Your task to perform on an android device: Open Google Maps and go to "Timeline" Image 0: 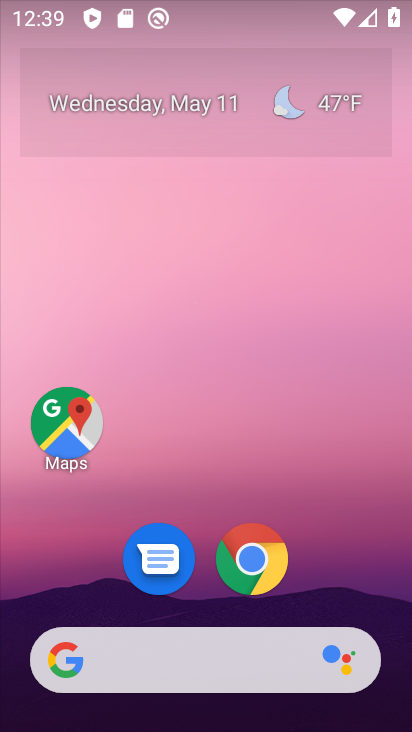
Step 0: drag from (200, 589) to (265, 91)
Your task to perform on an android device: Open Google Maps and go to "Timeline" Image 1: 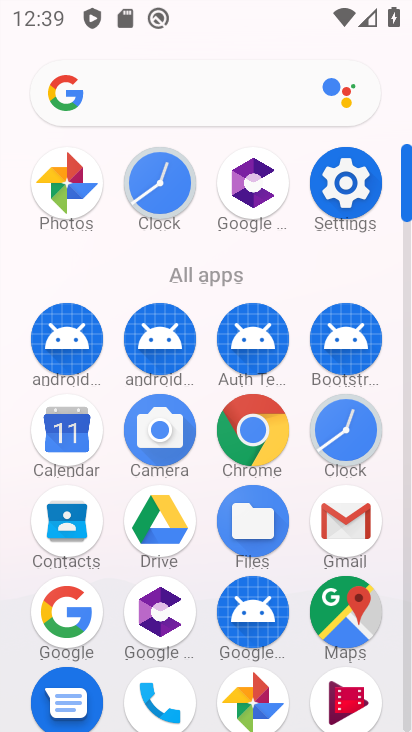
Step 1: click (340, 624)
Your task to perform on an android device: Open Google Maps and go to "Timeline" Image 2: 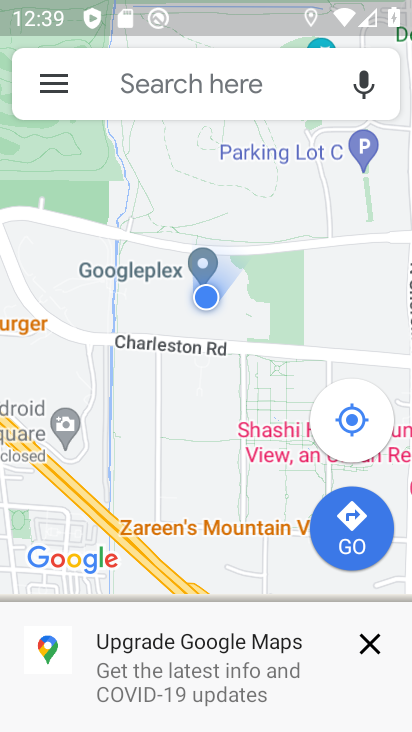
Step 2: click (363, 641)
Your task to perform on an android device: Open Google Maps and go to "Timeline" Image 3: 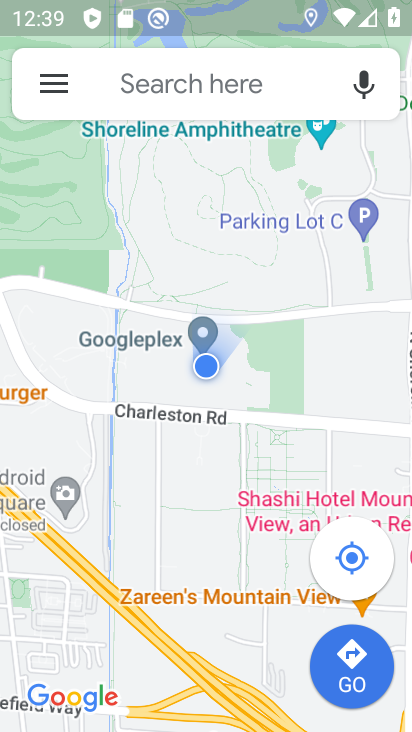
Step 3: click (64, 86)
Your task to perform on an android device: Open Google Maps and go to "Timeline" Image 4: 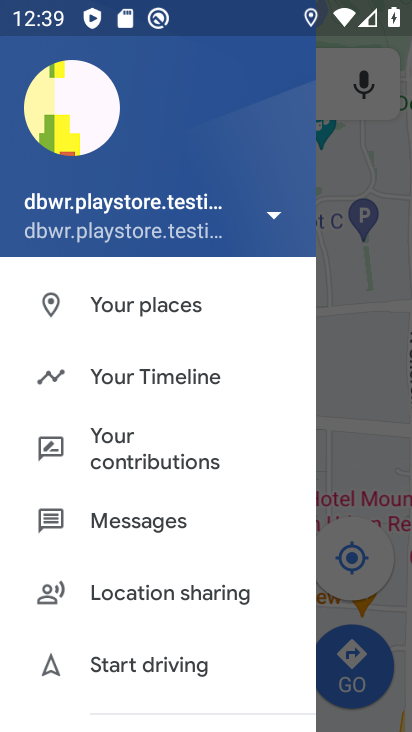
Step 4: click (150, 378)
Your task to perform on an android device: Open Google Maps and go to "Timeline" Image 5: 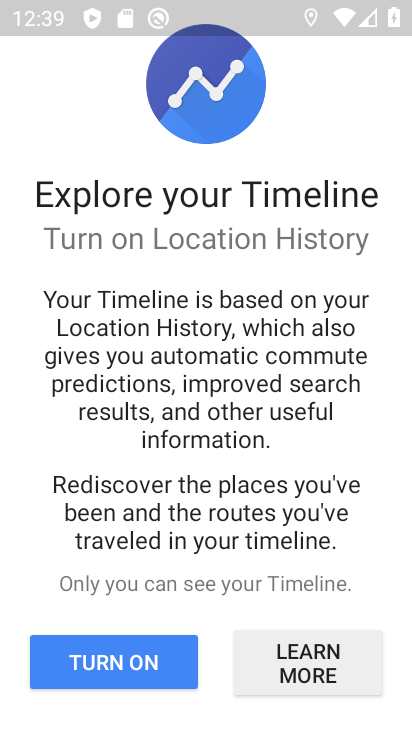
Step 5: drag from (201, 568) to (249, 151)
Your task to perform on an android device: Open Google Maps and go to "Timeline" Image 6: 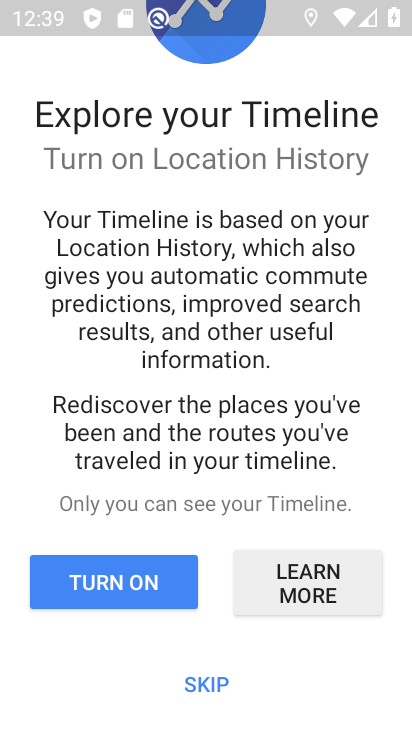
Step 6: click (208, 685)
Your task to perform on an android device: Open Google Maps and go to "Timeline" Image 7: 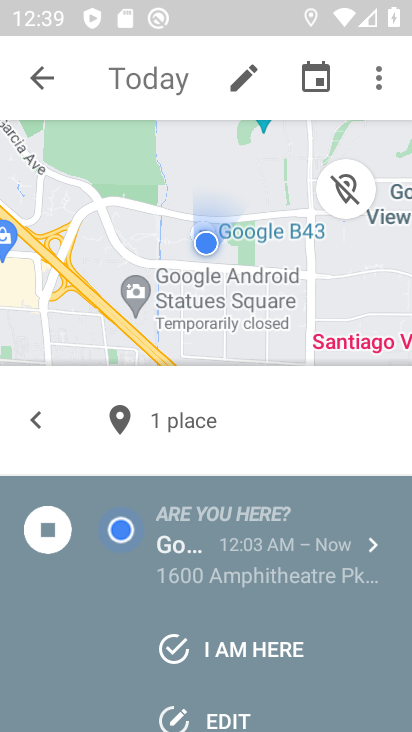
Step 7: task complete